Your task to perform on an android device: Search for Italian restaurants on Maps Image 0: 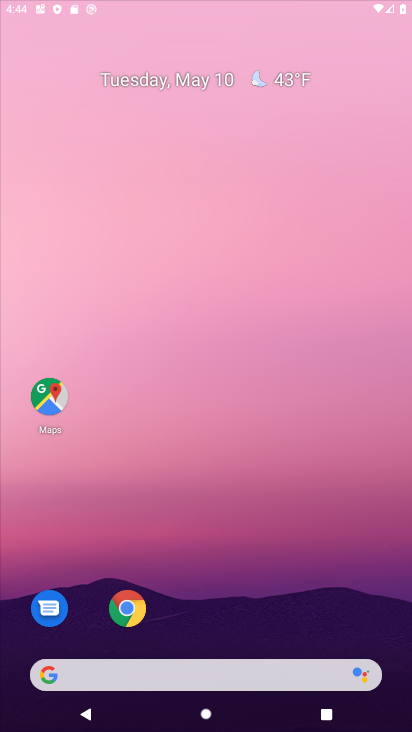
Step 0: click (308, 26)
Your task to perform on an android device: Search for Italian restaurants on Maps Image 1: 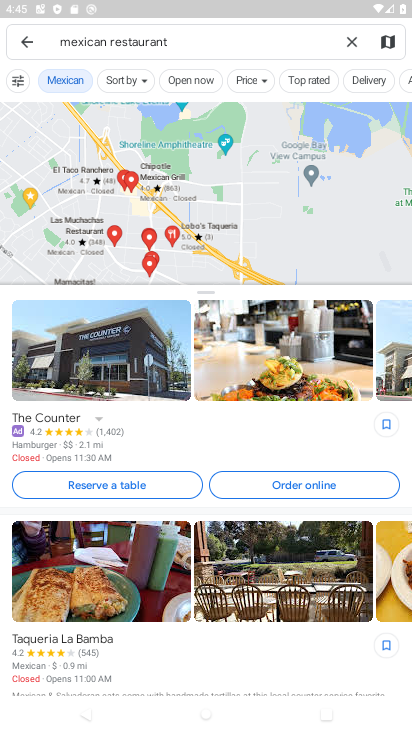
Step 1: press back button
Your task to perform on an android device: Search for Italian restaurants on Maps Image 2: 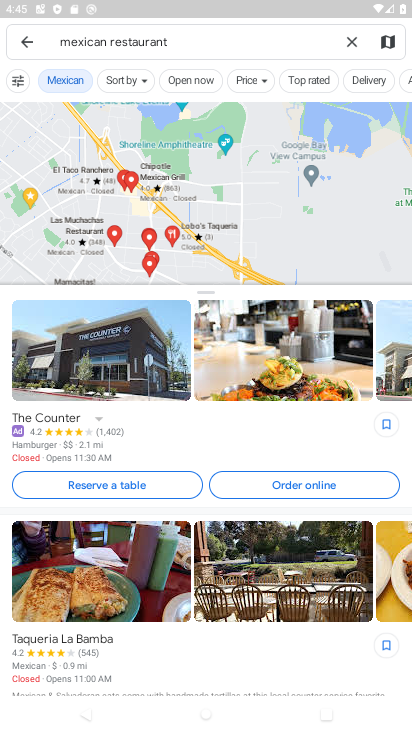
Step 2: press home button
Your task to perform on an android device: Search for Italian restaurants on Maps Image 3: 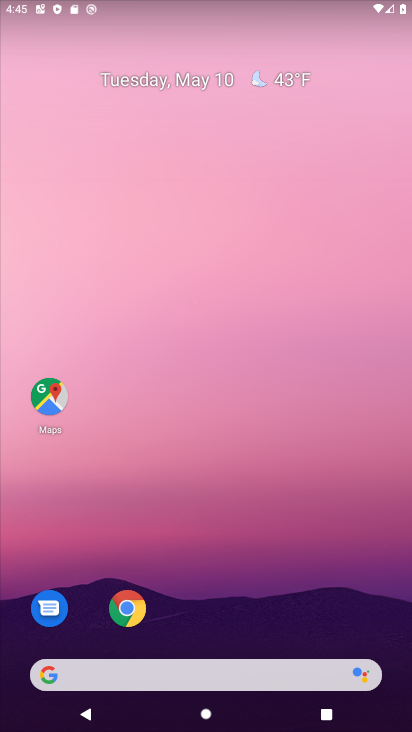
Step 3: click (45, 384)
Your task to perform on an android device: Search for Italian restaurants on Maps Image 4: 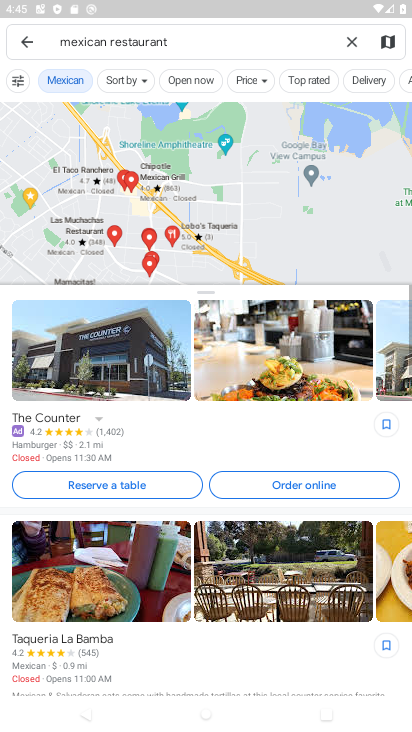
Step 4: click (345, 42)
Your task to perform on an android device: Search for Italian restaurants on Maps Image 5: 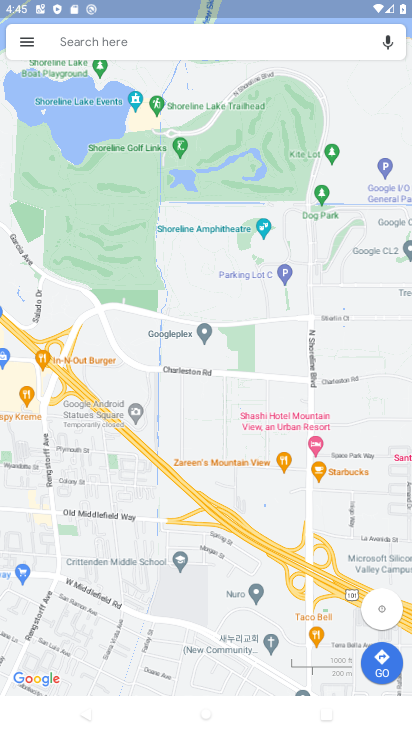
Step 5: click (131, 39)
Your task to perform on an android device: Search for Italian restaurants on Maps Image 6: 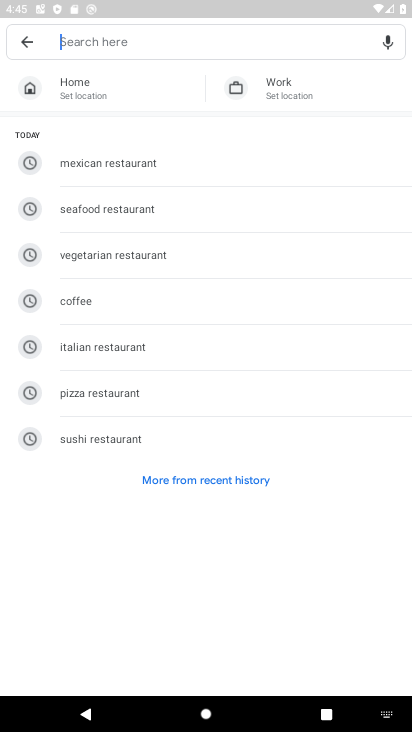
Step 6: click (103, 346)
Your task to perform on an android device: Search for Italian restaurants on Maps Image 7: 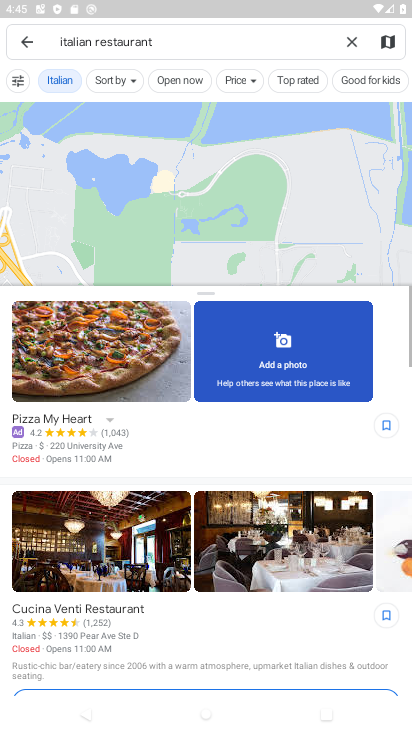
Step 7: task complete